Your task to perform on an android device: empty trash in the gmail app Image 0: 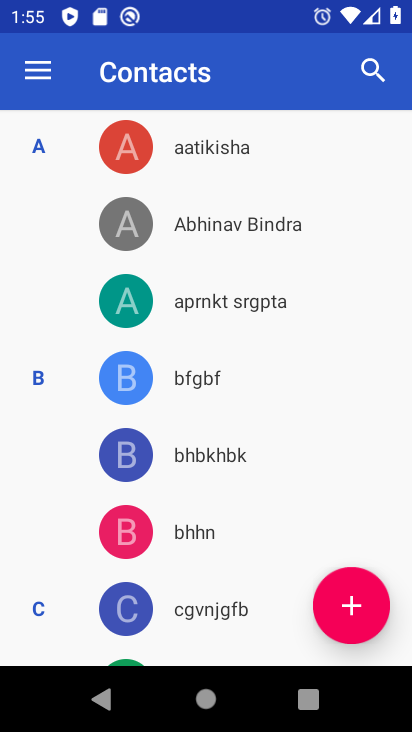
Step 0: press back button
Your task to perform on an android device: empty trash in the gmail app Image 1: 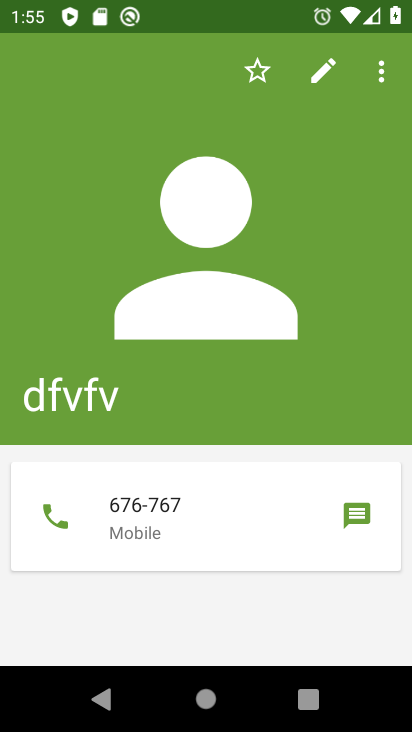
Step 1: press back button
Your task to perform on an android device: empty trash in the gmail app Image 2: 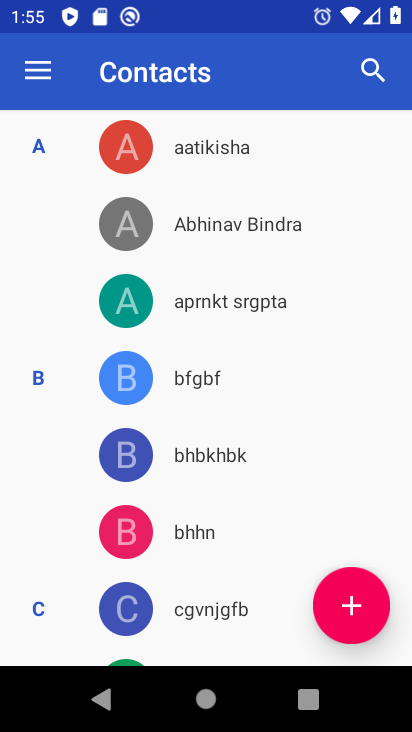
Step 2: press back button
Your task to perform on an android device: empty trash in the gmail app Image 3: 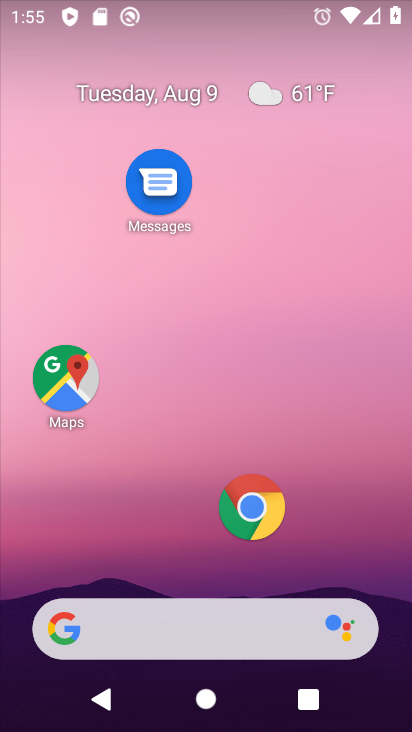
Step 3: drag from (140, 568) to (224, 74)
Your task to perform on an android device: empty trash in the gmail app Image 4: 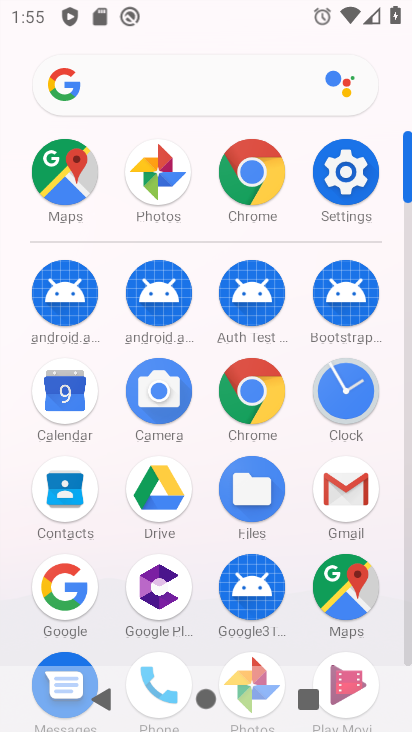
Step 4: click (312, 455)
Your task to perform on an android device: empty trash in the gmail app Image 5: 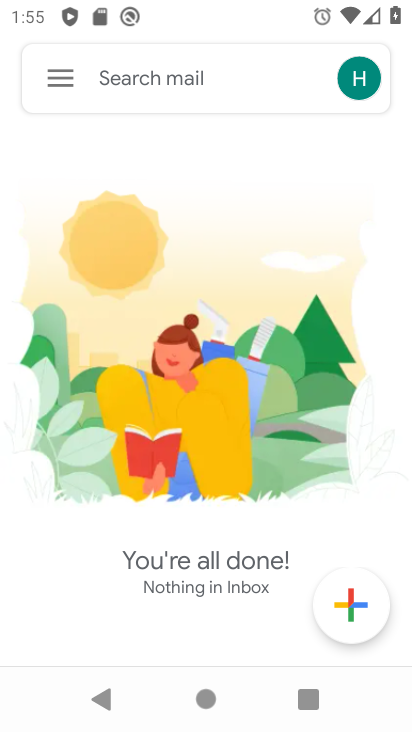
Step 5: click (55, 79)
Your task to perform on an android device: empty trash in the gmail app Image 6: 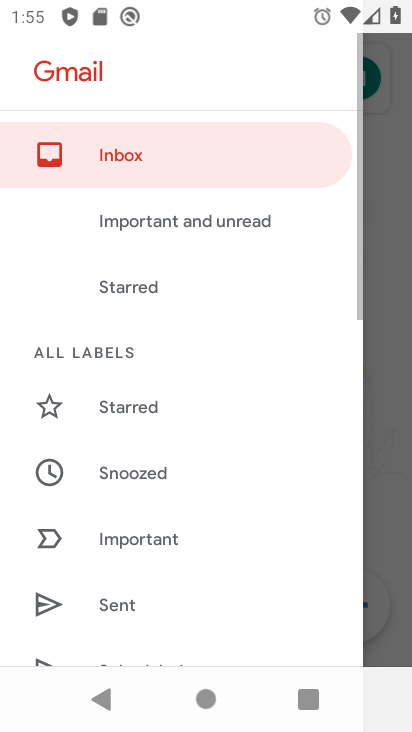
Step 6: drag from (179, 604) to (290, 73)
Your task to perform on an android device: empty trash in the gmail app Image 7: 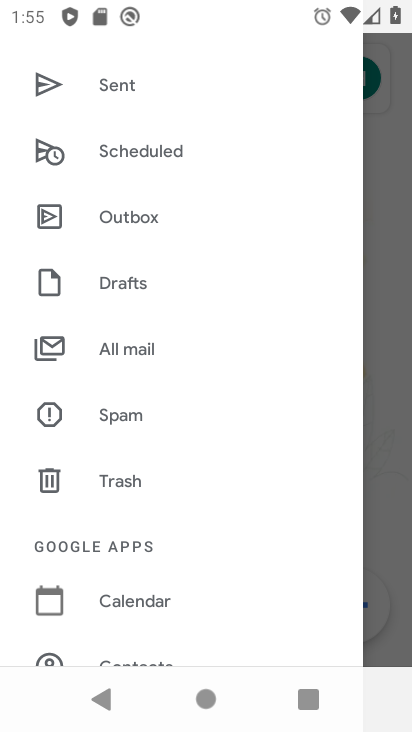
Step 7: click (123, 495)
Your task to perform on an android device: empty trash in the gmail app Image 8: 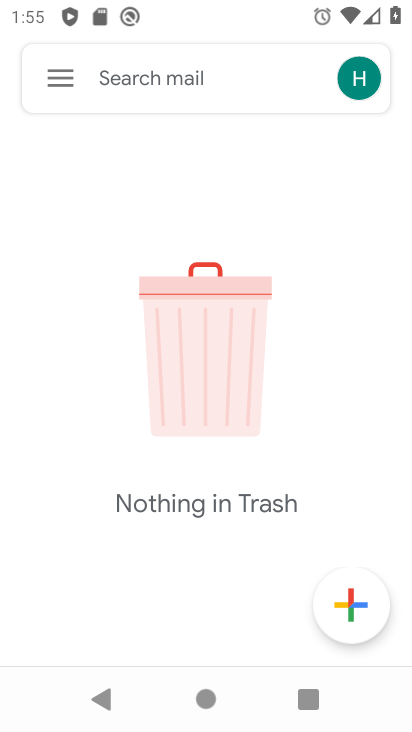
Step 8: task complete